Your task to perform on an android device: open chrome and create a bookmark for the current page Image 0: 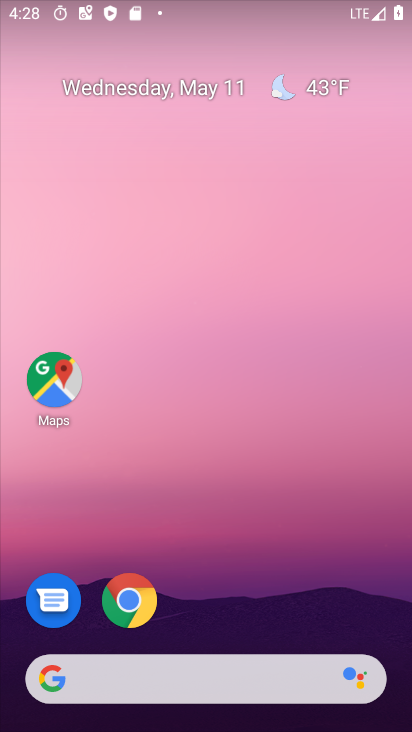
Step 0: click (125, 608)
Your task to perform on an android device: open chrome and create a bookmark for the current page Image 1: 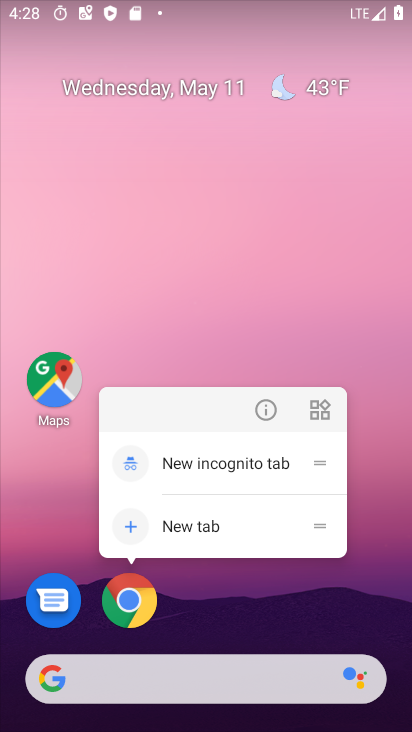
Step 1: click (130, 602)
Your task to perform on an android device: open chrome and create a bookmark for the current page Image 2: 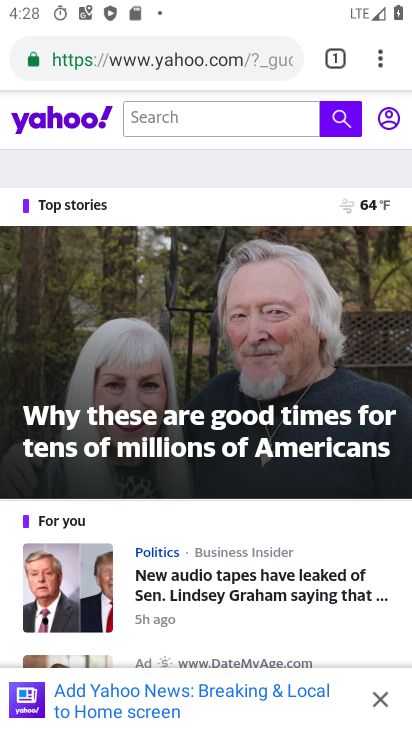
Step 2: click (387, 59)
Your task to perform on an android device: open chrome and create a bookmark for the current page Image 3: 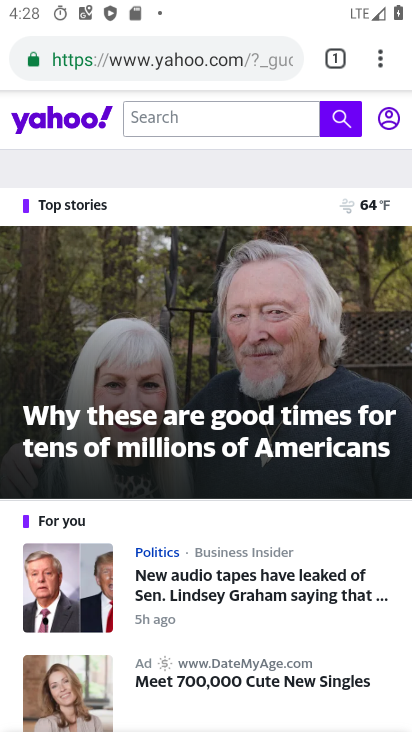
Step 3: task complete